Your task to perform on an android device: remove spam from my inbox in the gmail app Image 0: 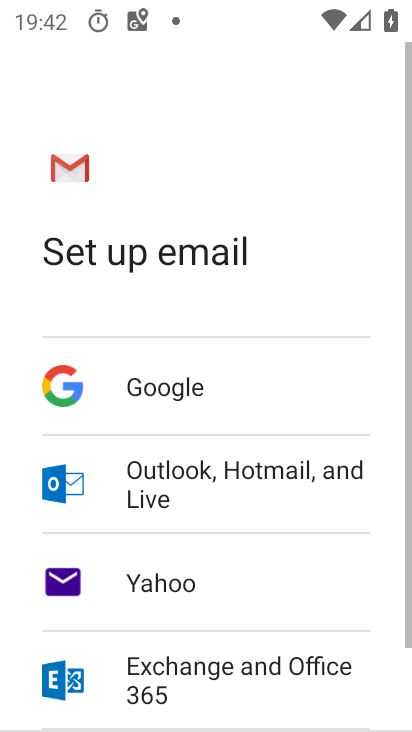
Step 0: press home button
Your task to perform on an android device: remove spam from my inbox in the gmail app Image 1: 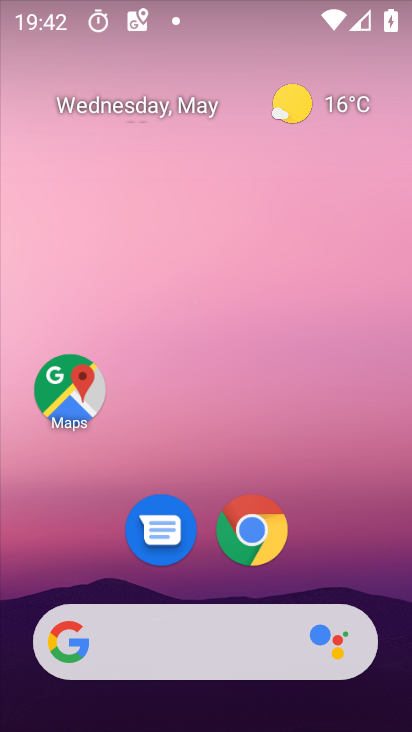
Step 1: drag from (114, 432) to (236, 243)
Your task to perform on an android device: remove spam from my inbox in the gmail app Image 2: 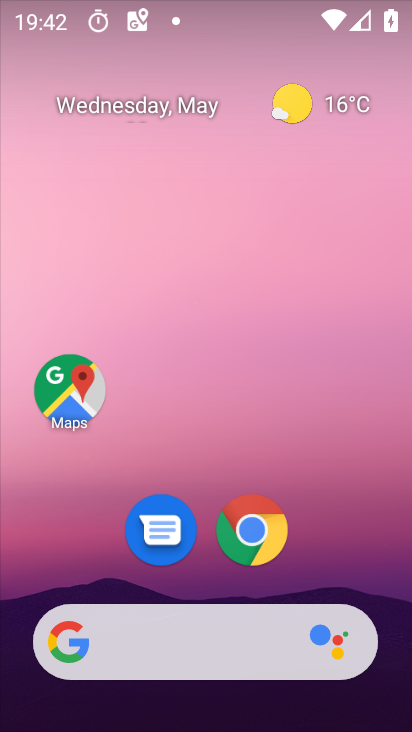
Step 2: drag from (86, 475) to (127, 232)
Your task to perform on an android device: remove spam from my inbox in the gmail app Image 3: 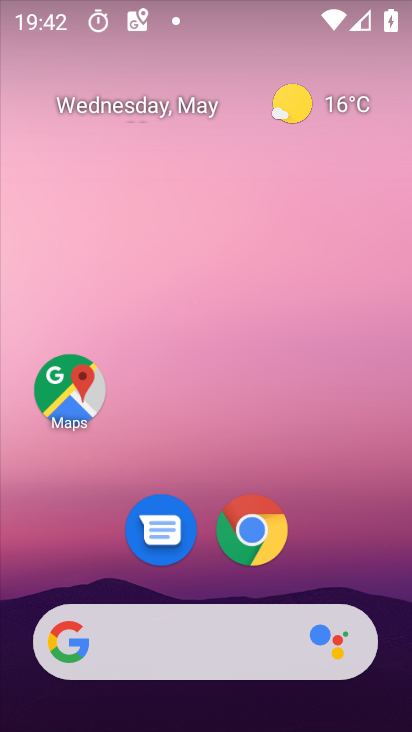
Step 3: drag from (222, 412) to (217, 123)
Your task to perform on an android device: remove spam from my inbox in the gmail app Image 4: 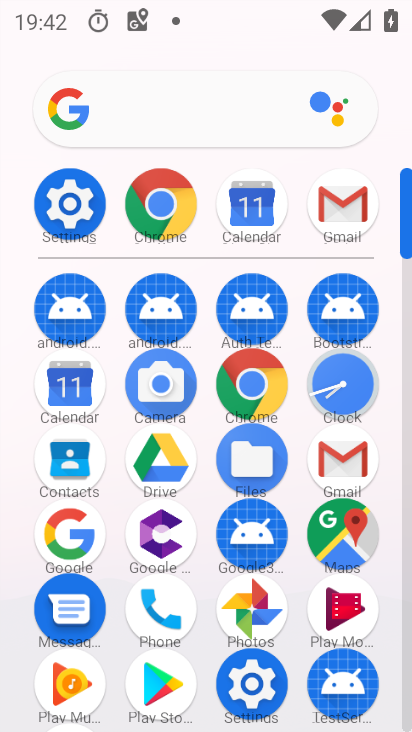
Step 4: click (337, 204)
Your task to perform on an android device: remove spam from my inbox in the gmail app Image 5: 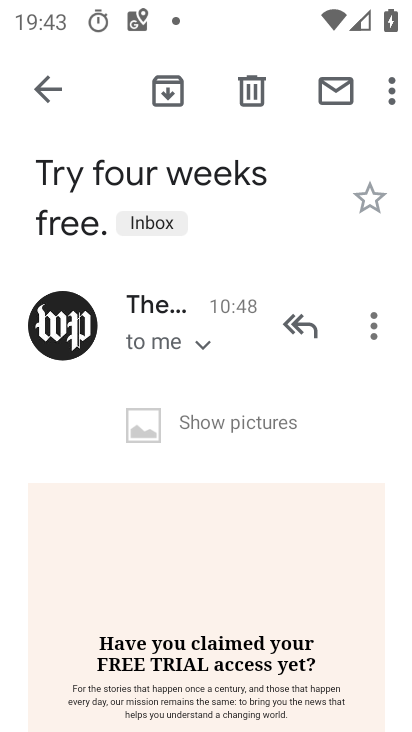
Step 5: click (49, 89)
Your task to perform on an android device: remove spam from my inbox in the gmail app Image 6: 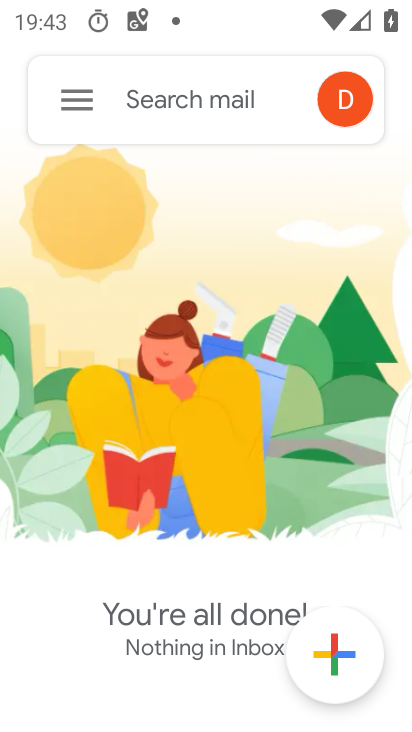
Step 6: click (85, 94)
Your task to perform on an android device: remove spam from my inbox in the gmail app Image 7: 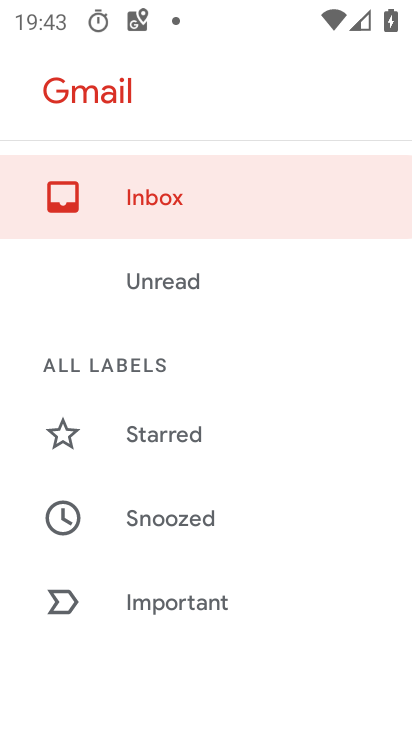
Step 7: drag from (135, 456) to (203, 279)
Your task to perform on an android device: remove spam from my inbox in the gmail app Image 8: 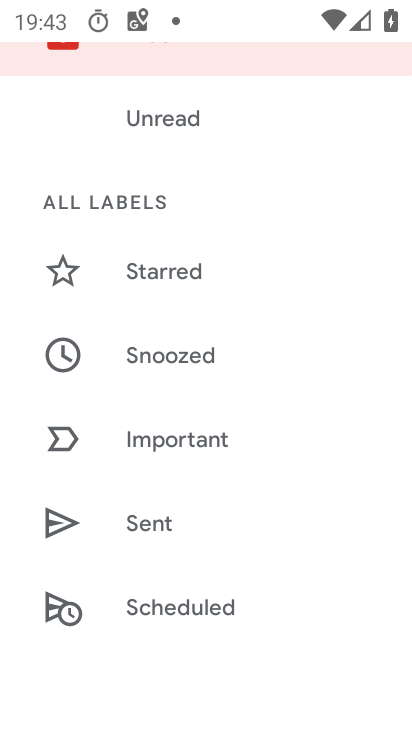
Step 8: drag from (236, 284) to (242, 249)
Your task to perform on an android device: remove spam from my inbox in the gmail app Image 9: 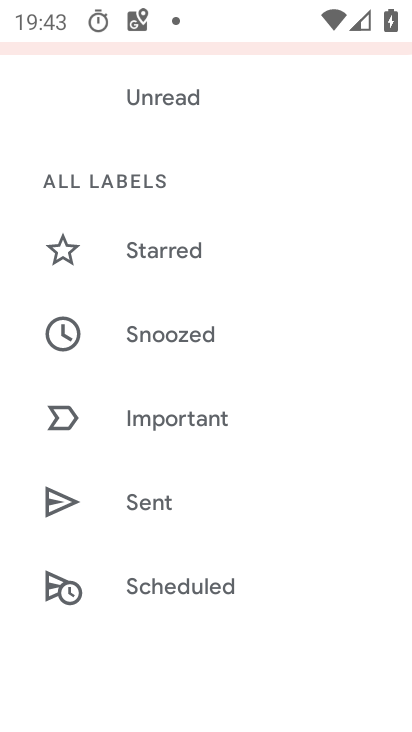
Step 9: drag from (167, 463) to (207, 161)
Your task to perform on an android device: remove spam from my inbox in the gmail app Image 10: 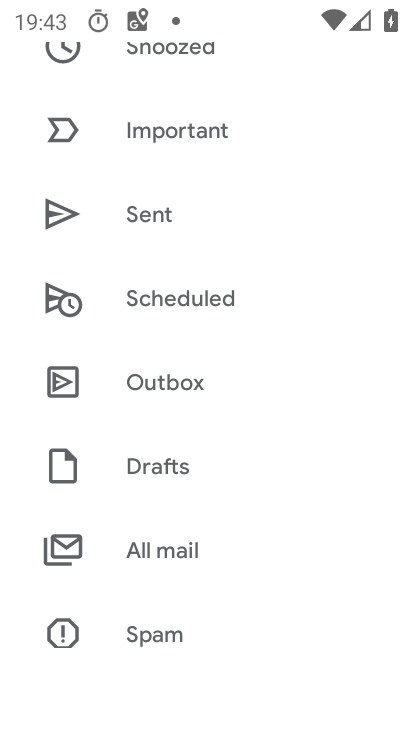
Step 10: click (149, 627)
Your task to perform on an android device: remove spam from my inbox in the gmail app Image 11: 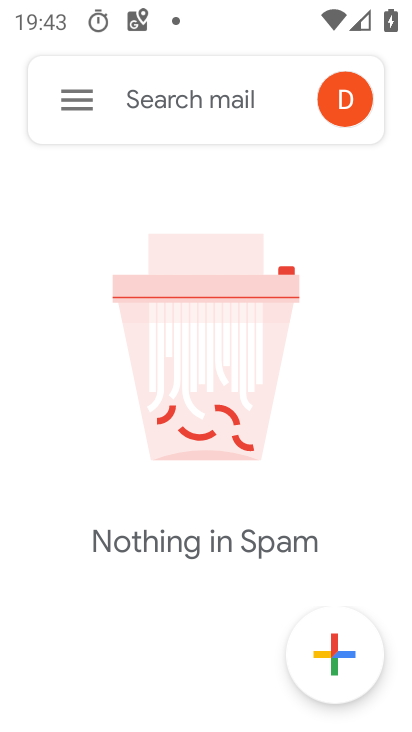
Step 11: task complete